Your task to perform on an android device: turn off priority inbox in the gmail app Image 0: 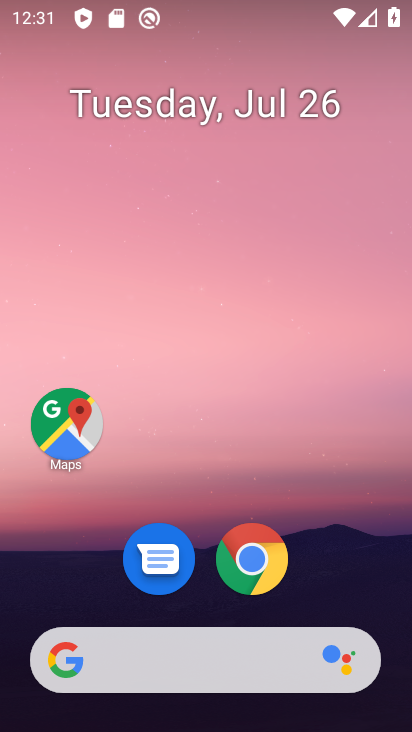
Step 0: drag from (78, 588) to (185, 3)
Your task to perform on an android device: turn off priority inbox in the gmail app Image 1: 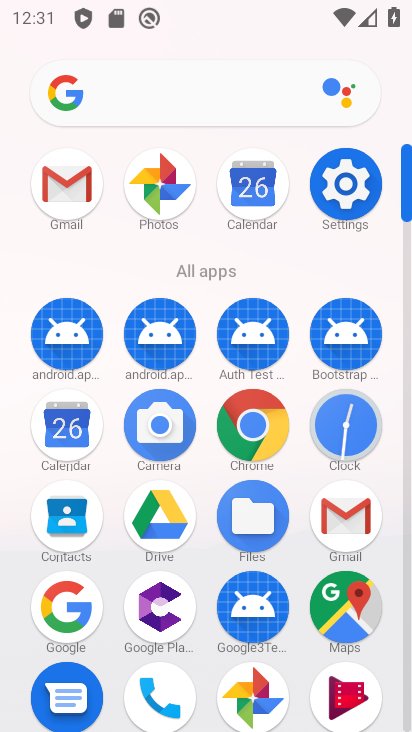
Step 1: click (69, 179)
Your task to perform on an android device: turn off priority inbox in the gmail app Image 2: 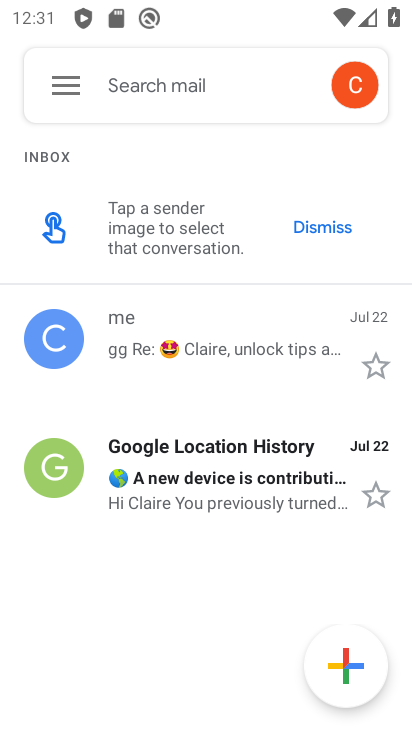
Step 2: click (57, 92)
Your task to perform on an android device: turn off priority inbox in the gmail app Image 3: 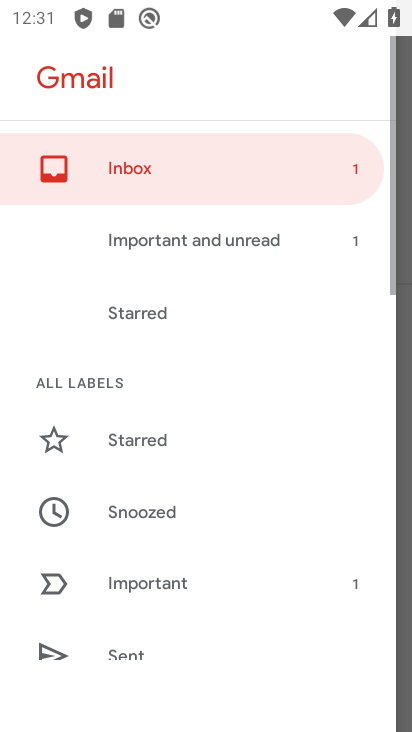
Step 3: drag from (200, 644) to (281, 89)
Your task to perform on an android device: turn off priority inbox in the gmail app Image 4: 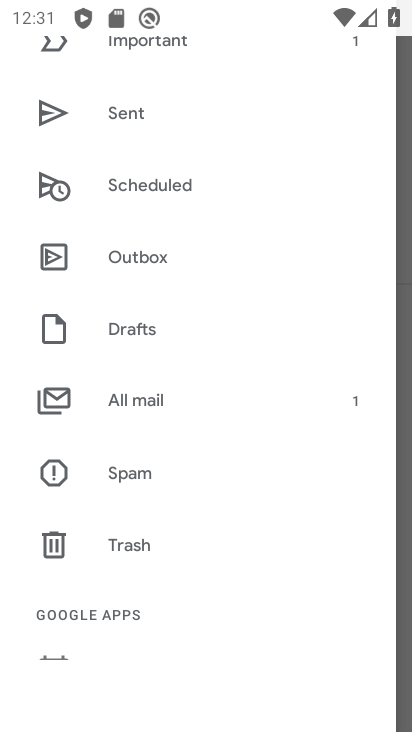
Step 4: drag from (208, 566) to (306, 36)
Your task to perform on an android device: turn off priority inbox in the gmail app Image 5: 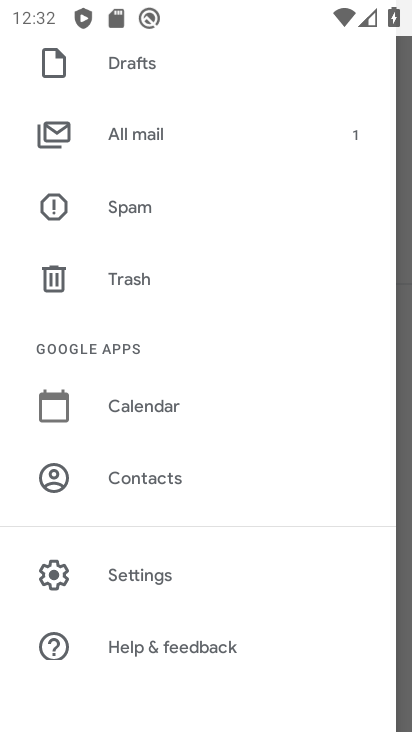
Step 5: click (137, 566)
Your task to perform on an android device: turn off priority inbox in the gmail app Image 6: 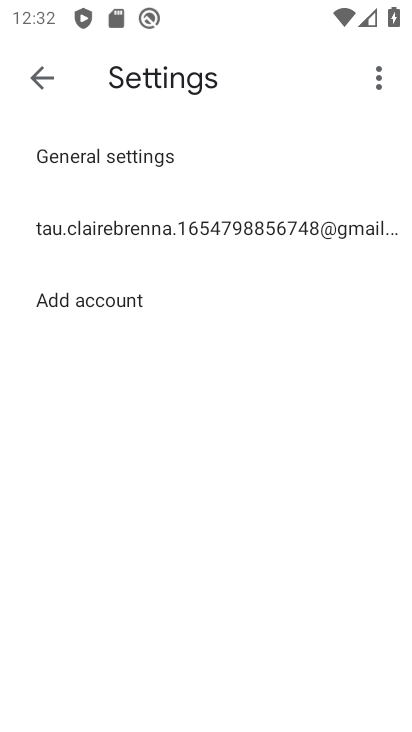
Step 6: click (230, 234)
Your task to perform on an android device: turn off priority inbox in the gmail app Image 7: 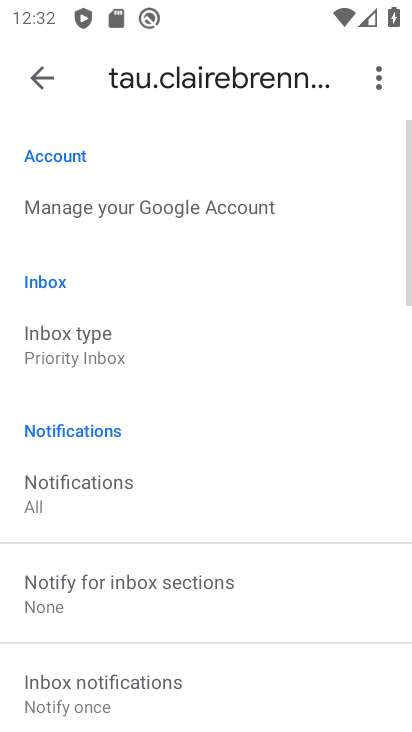
Step 7: click (43, 348)
Your task to perform on an android device: turn off priority inbox in the gmail app Image 8: 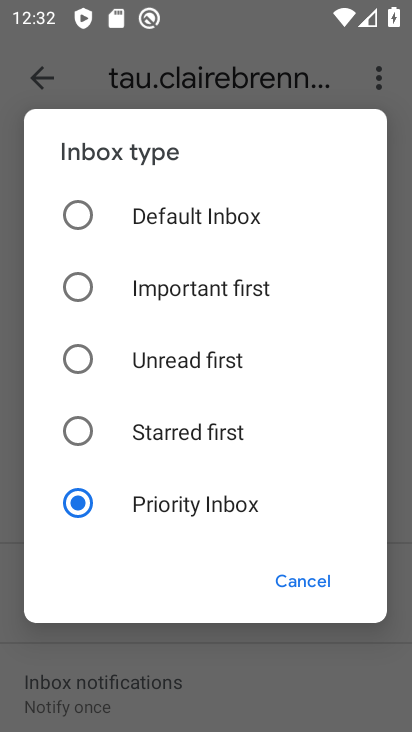
Step 8: click (125, 205)
Your task to perform on an android device: turn off priority inbox in the gmail app Image 9: 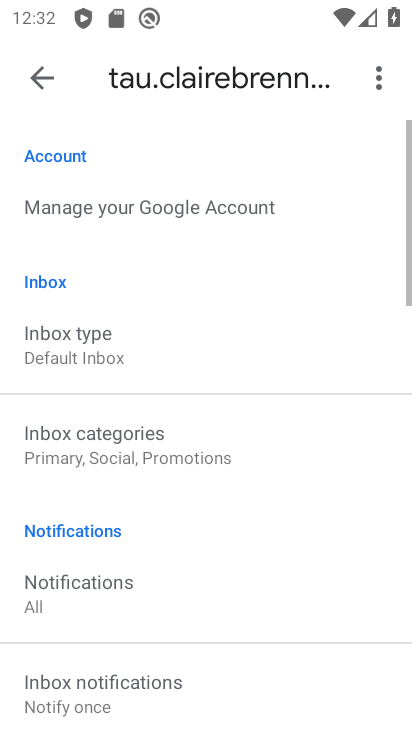
Step 9: task complete